Your task to perform on an android device: Go to Amazon Image 0: 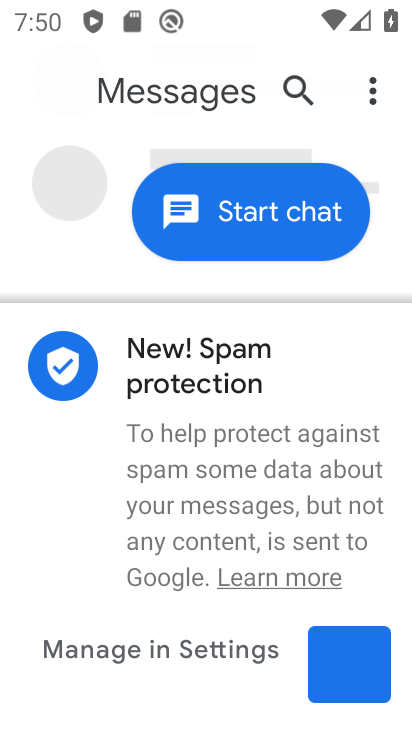
Step 0: press home button
Your task to perform on an android device: Go to Amazon Image 1: 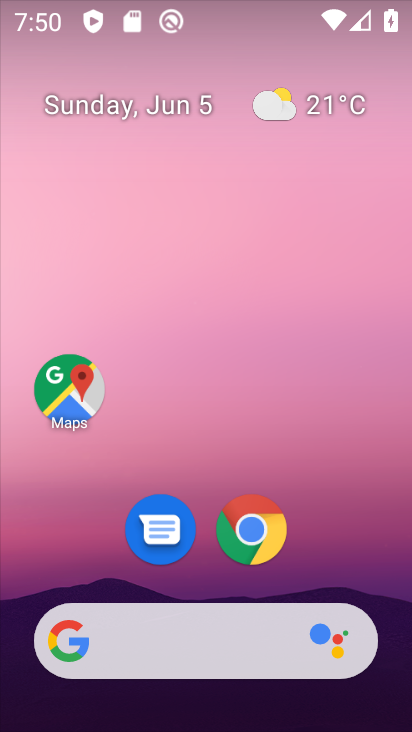
Step 1: click (253, 540)
Your task to perform on an android device: Go to Amazon Image 2: 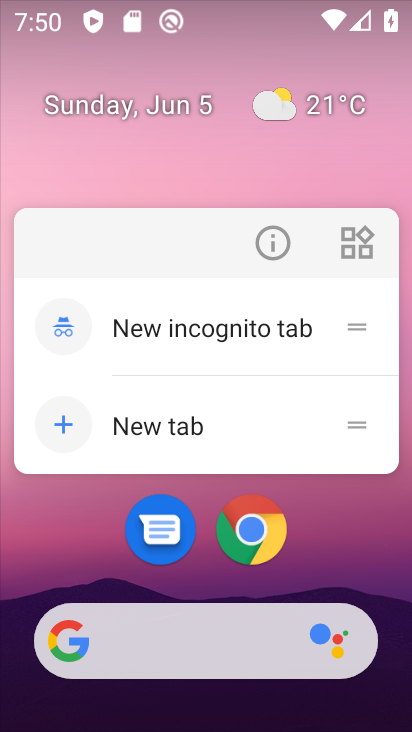
Step 2: click (253, 540)
Your task to perform on an android device: Go to Amazon Image 3: 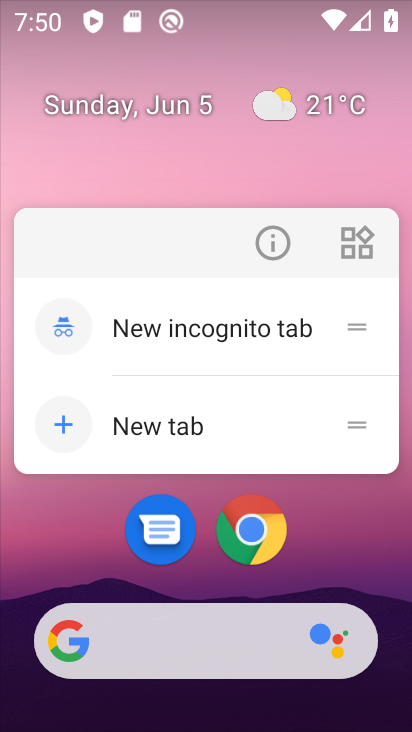
Step 3: click (253, 540)
Your task to perform on an android device: Go to Amazon Image 4: 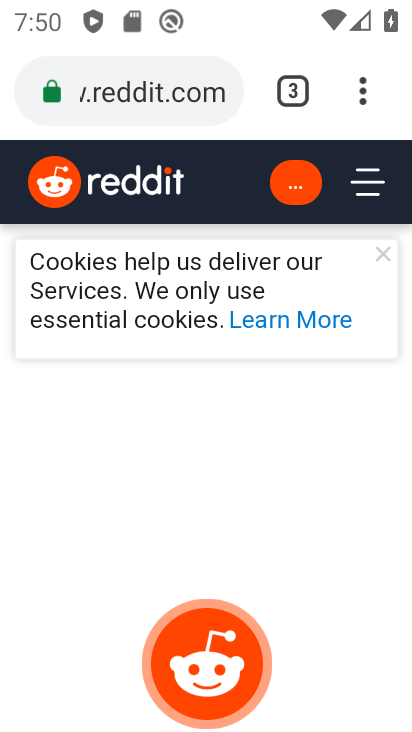
Step 4: click (354, 86)
Your task to perform on an android device: Go to Amazon Image 5: 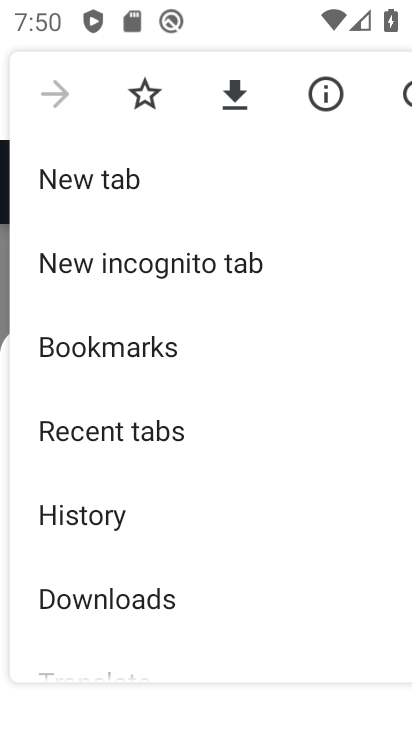
Step 5: click (107, 176)
Your task to perform on an android device: Go to Amazon Image 6: 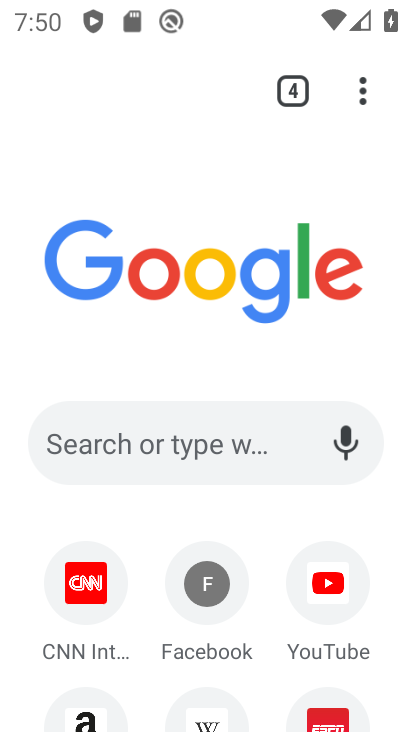
Step 6: click (83, 714)
Your task to perform on an android device: Go to Amazon Image 7: 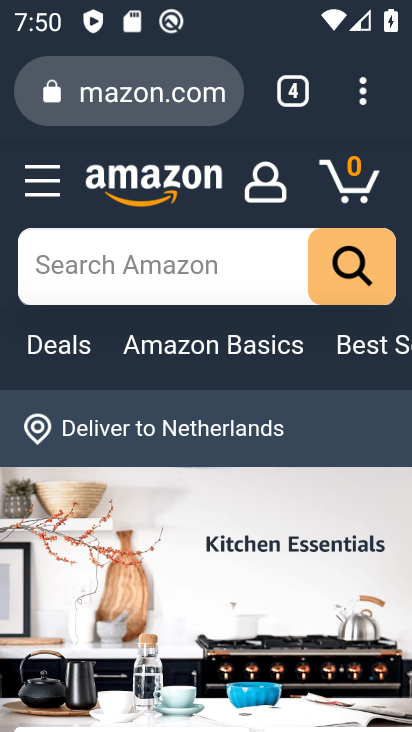
Step 7: task complete